Your task to perform on an android device: open a new tab in the chrome app Image 0: 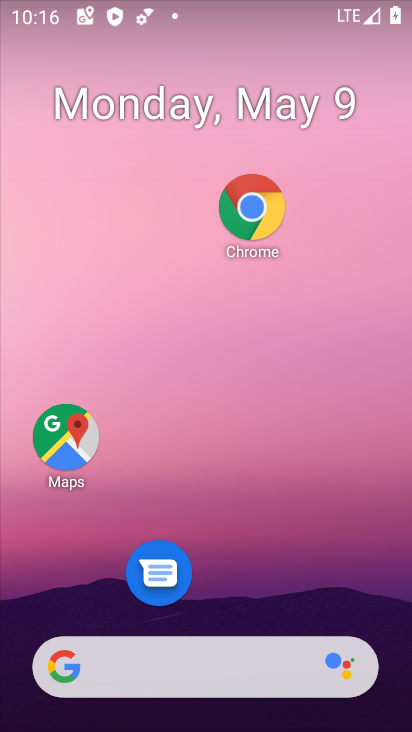
Step 0: drag from (185, 651) to (272, 117)
Your task to perform on an android device: open a new tab in the chrome app Image 1: 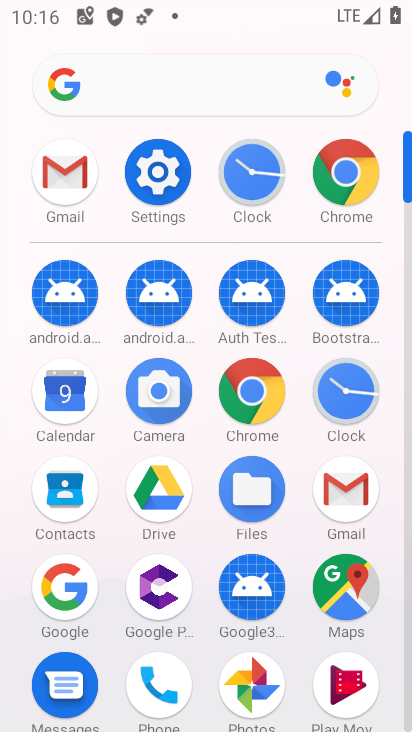
Step 1: click (374, 209)
Your task to perform on an android device: open a new tab in the chrome app Image 2: 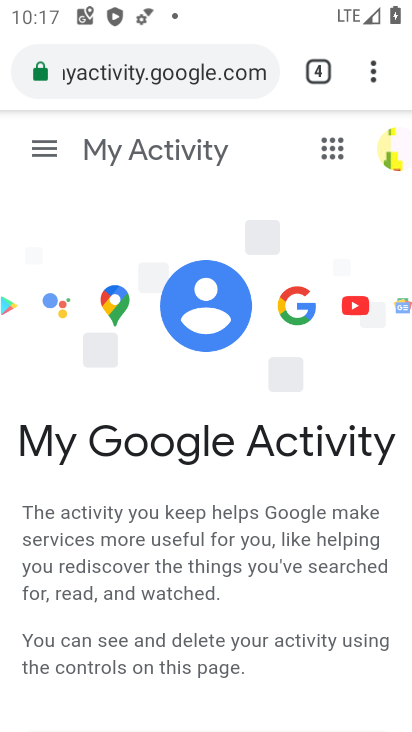
Step 2: drag from (322, 85) to (208, 364)
Your task to perform on an android device: open a new tab in the chrome app Image 3: 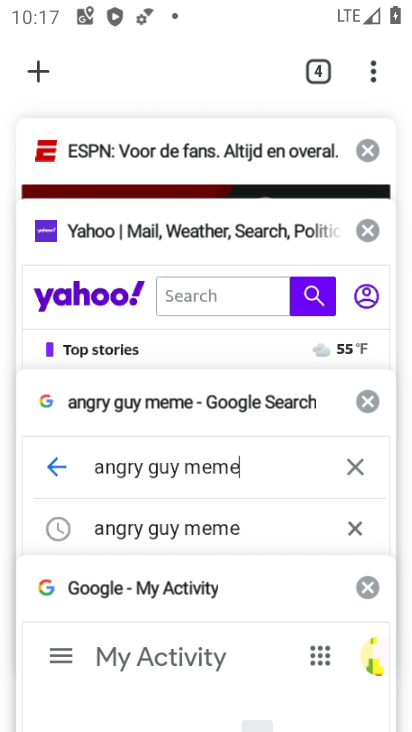
Step 3: click (42, 69)
Your task to perform on an android device: open a new tab in the chrome app Image 4: 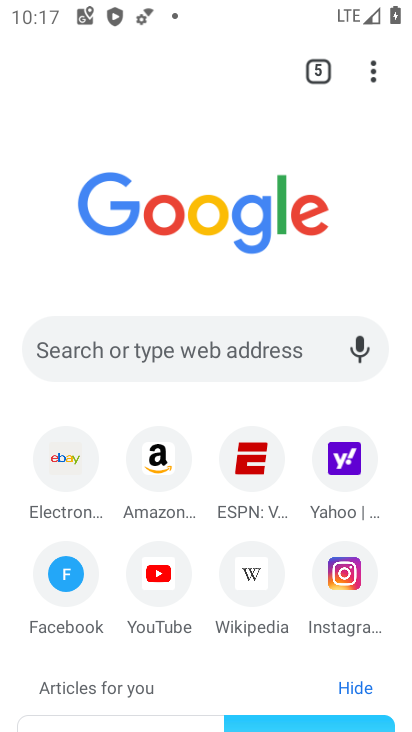
Step 4: task complete